Your task to perform on an android device: Open the calendar app Image 0: 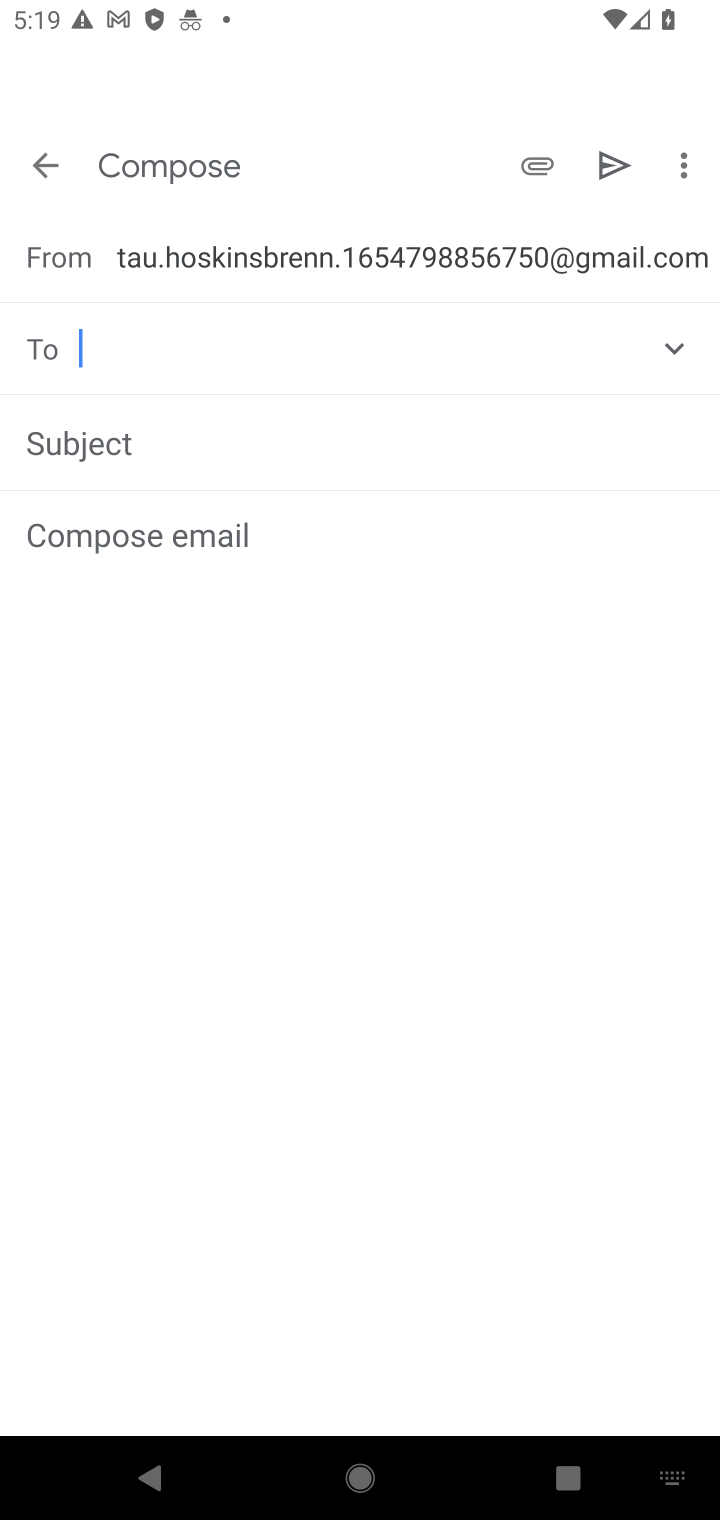
Step 0: press home button
Your task to perform on an android device: Open the calendar app Image 1: 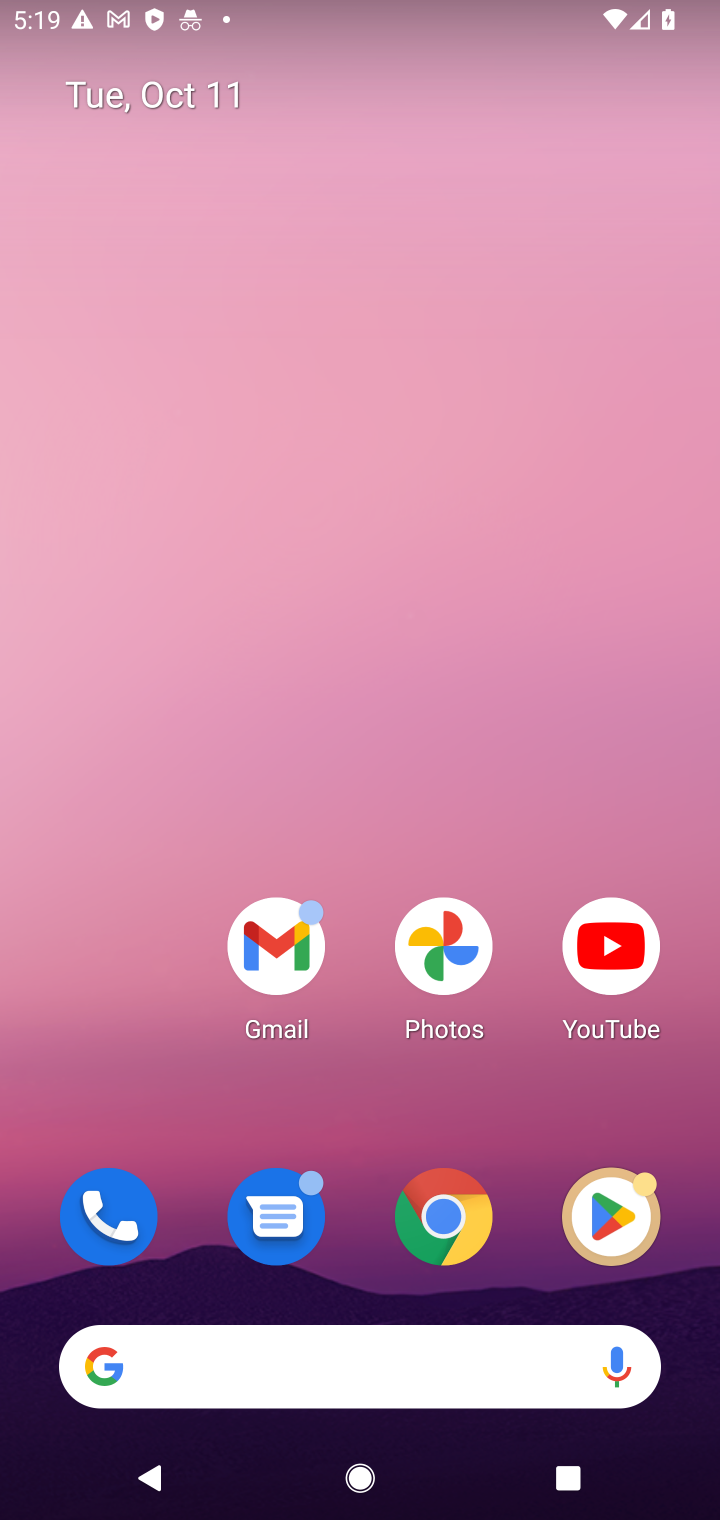
Step 1: drag from (367, 1369) to (378, 188)
Your task to perform on an android device: Open the calendar app Image 2: 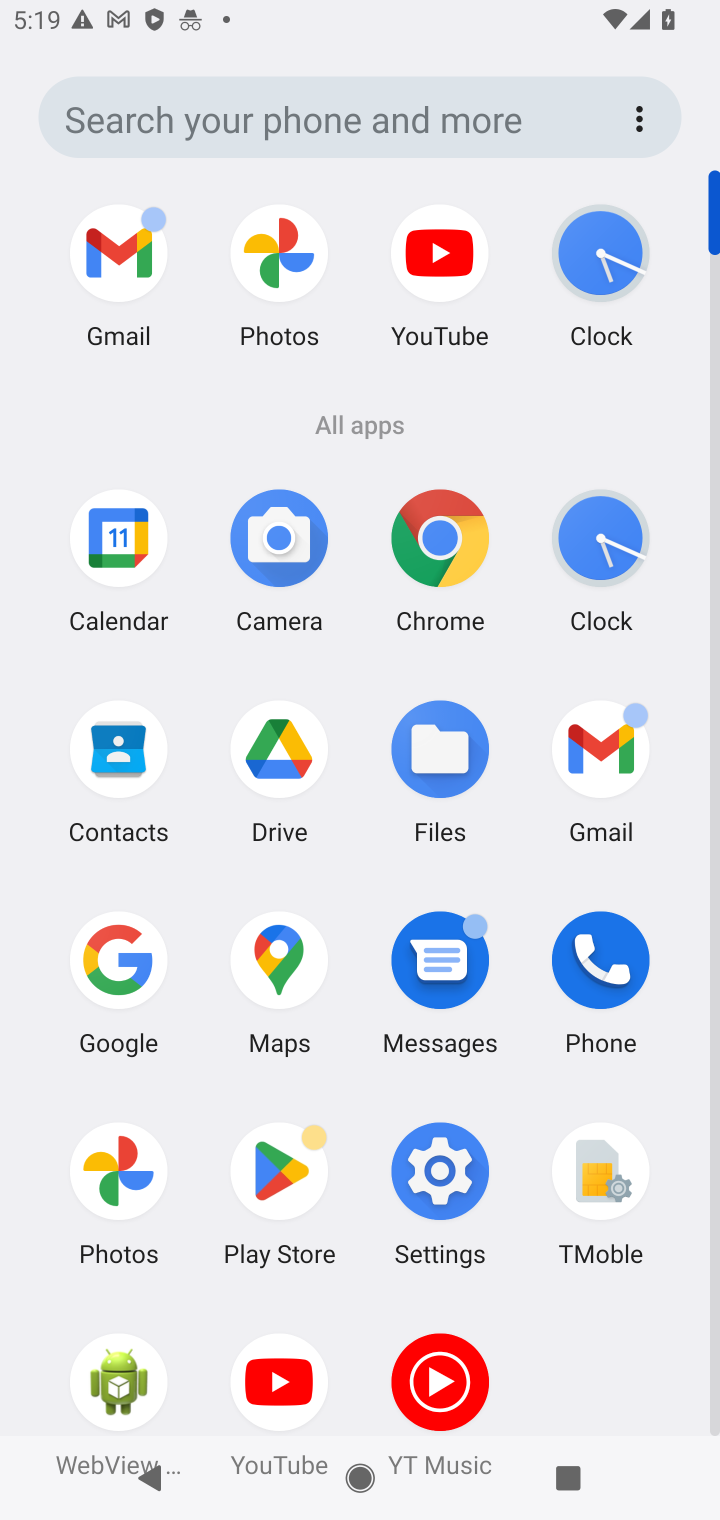
Step 2: click (127, 543)
Your task to perform on an android device: Open the calendar app Image 3: 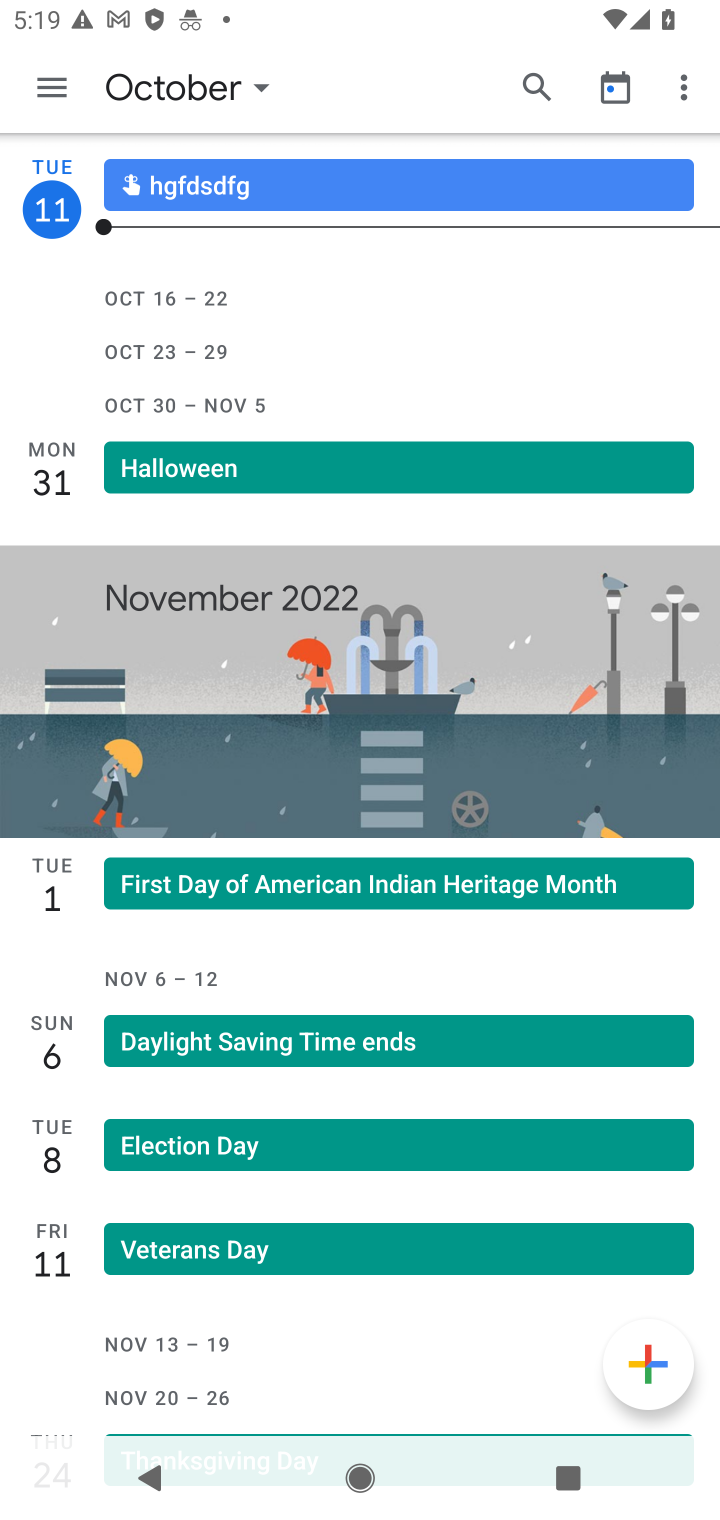
Step 3: task complete